Your task to perform on an android device: turn on notifications settings in the gmail app Image 0: 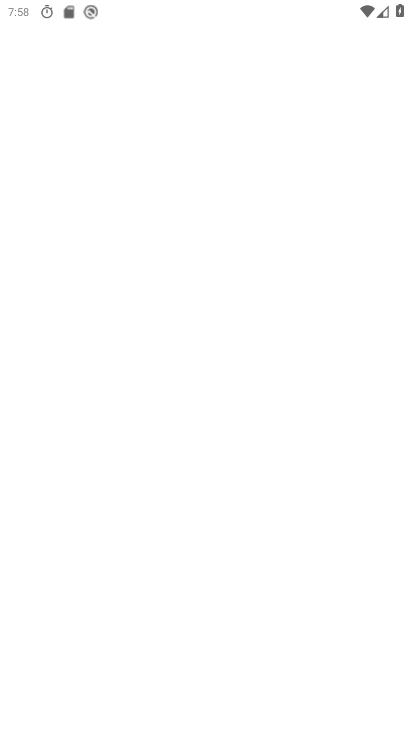
Step 0: drag from (160, 681) to (270, 255)
Your task to perform on an android device: turn on notifications settings in the gmail app Image 1: 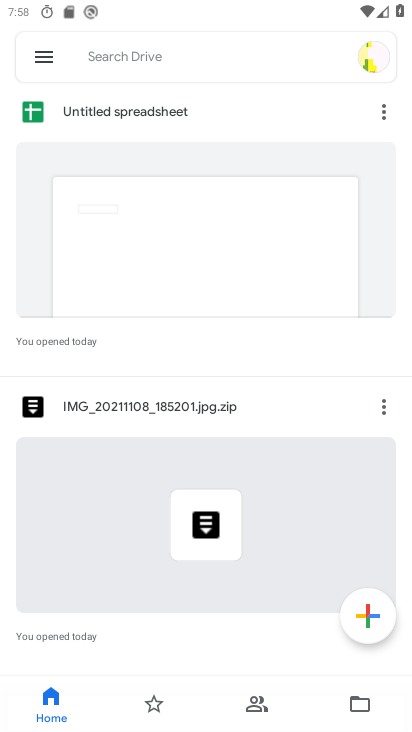
Step 1: press home button
Your task to perform on an android device: turn on notifications settings in the gmail app Image 2: 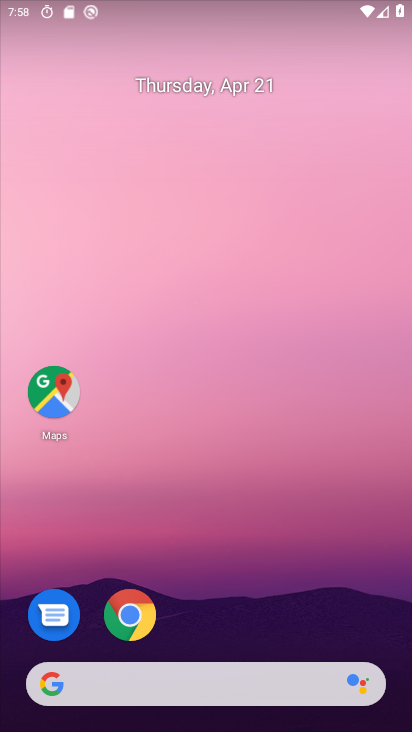
Step 2: drag from (185, 679) to (318, 65)
Your task to perform on an android device: turn on notifications settings in the gmail app Image 3: 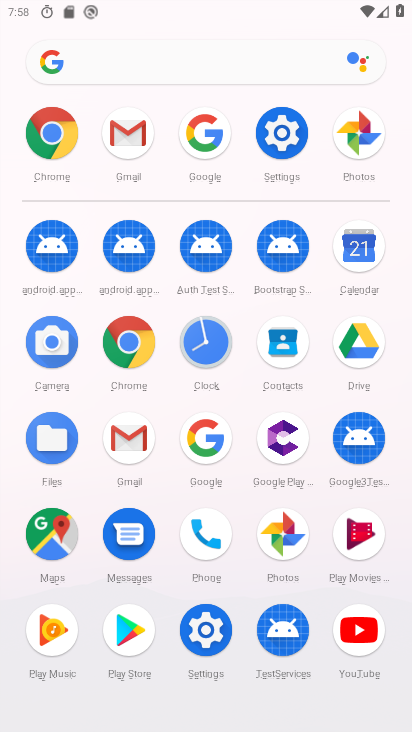
Step 3: click (124, 140)
Your task to perform on an android device: turn on notifications settings in the gmail app Image 4: 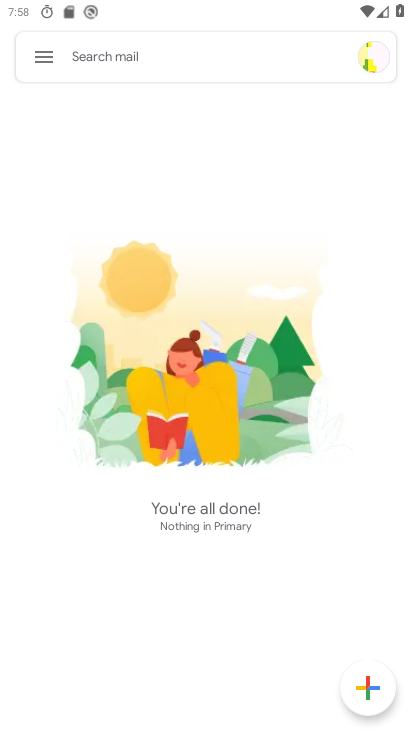
Step 4: click (39, 52)
Your task to perform on an android device: turn on notifications settings in the gmail app Image 5: 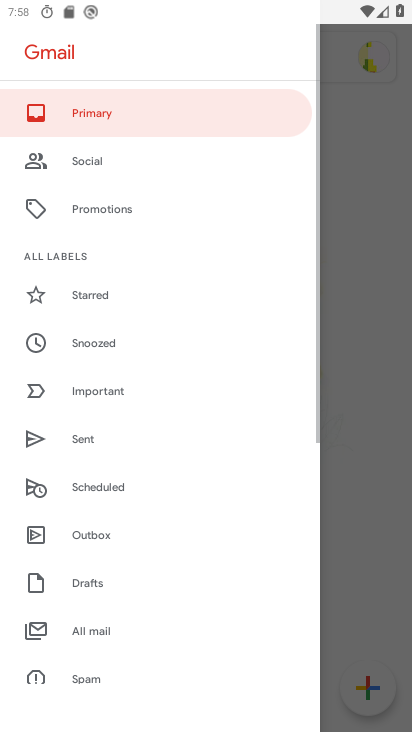
Step 5: drag from (164, 656) to (235, 225)
Your task to perform on an android device: turn on notifications settings in the gmail app Image 6: 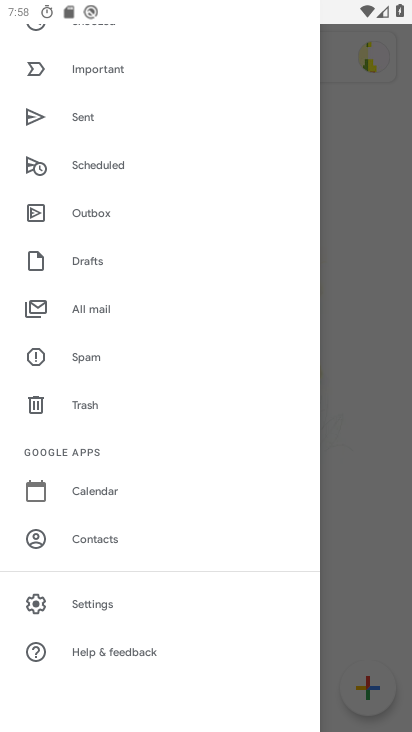
Step 6: click (88, 604)
Your task to perform on an android device: turn on notifications settings in the gmail app Image 7: 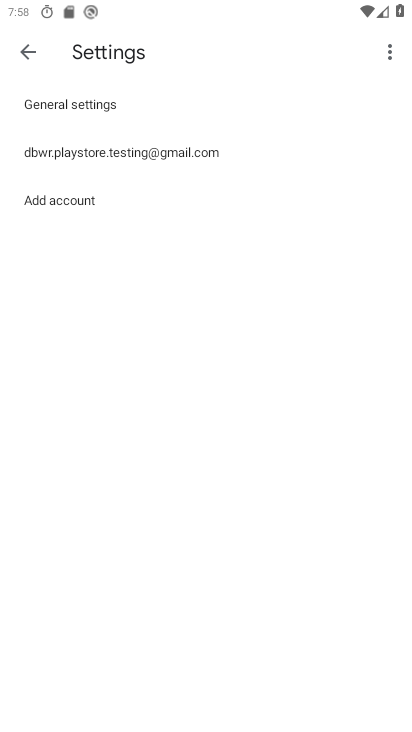
Step 7: click (121, 151)
Your task to perform on an android device: turn on notifications settings in the gmail app Image 8: 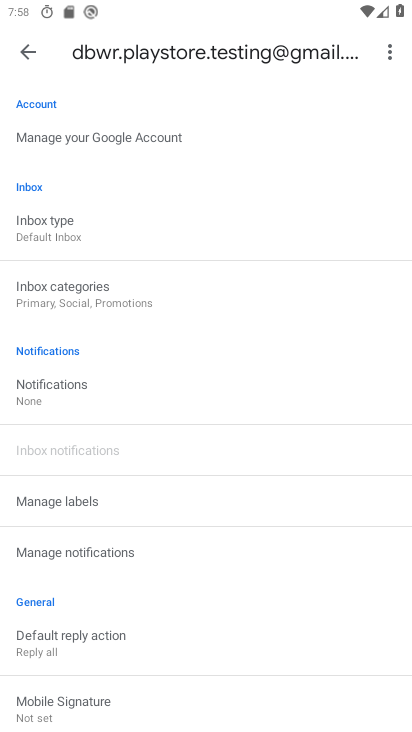
Step 8: click (29, 400)
Your task to perform on an android device: turn on notifications settings in the gmail app Image 9: 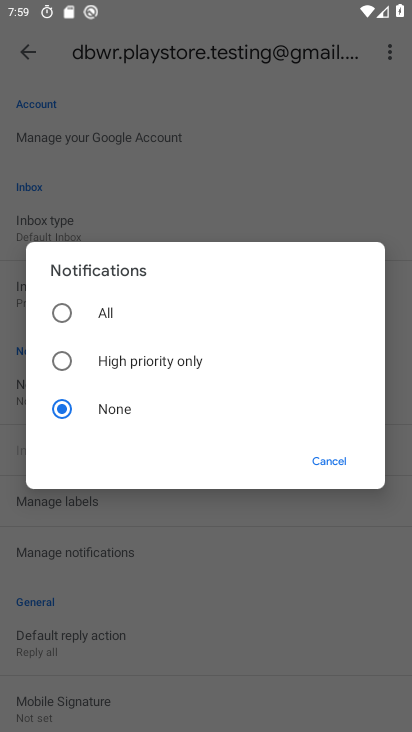
Step 9: click (63, 309)
Your task to perform on an android device: turn on notifications settings in the gmail app Image 10: 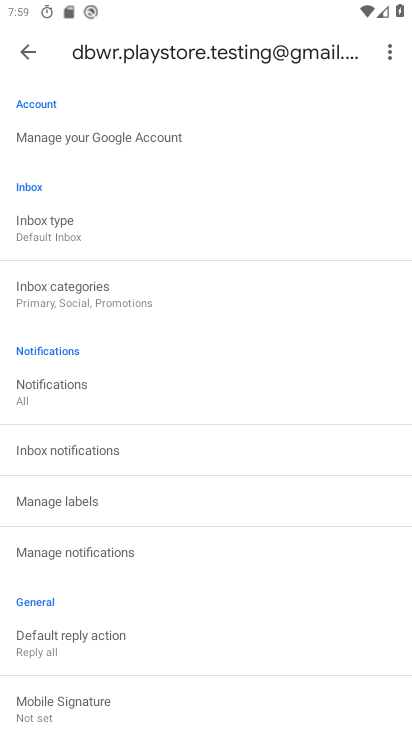
Step 10: task complete